Your task to perform on an android device: What is the recent news? Image 0: 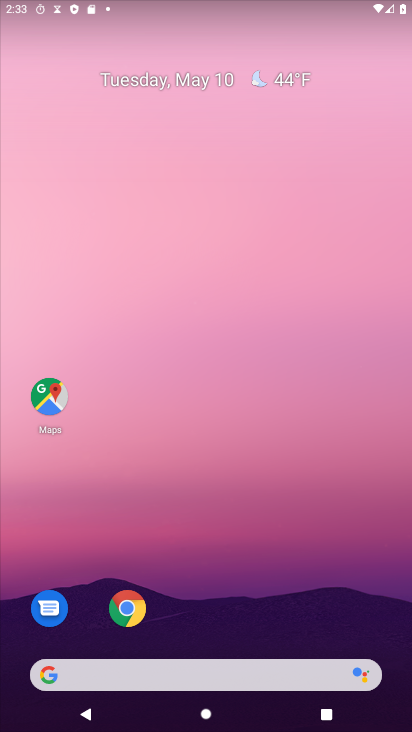
Step 0: drag from (8, 256) to (410, 627)
Your task to perform on an android device: What is the recent news? Image 1: 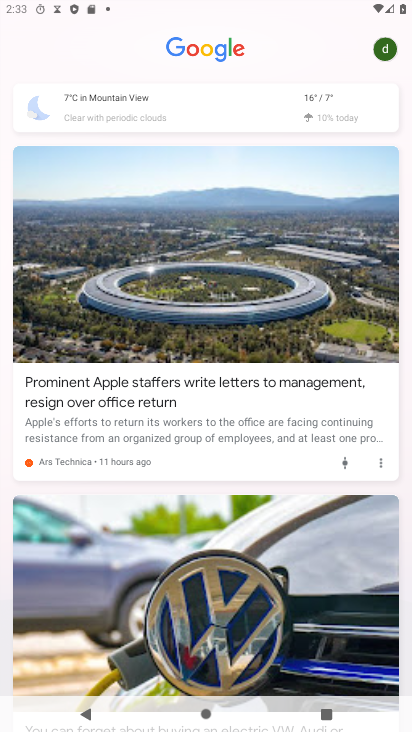
Step 1: task complete